Your task to perform on an android device: toggle data saver in the chrome app Image 0: 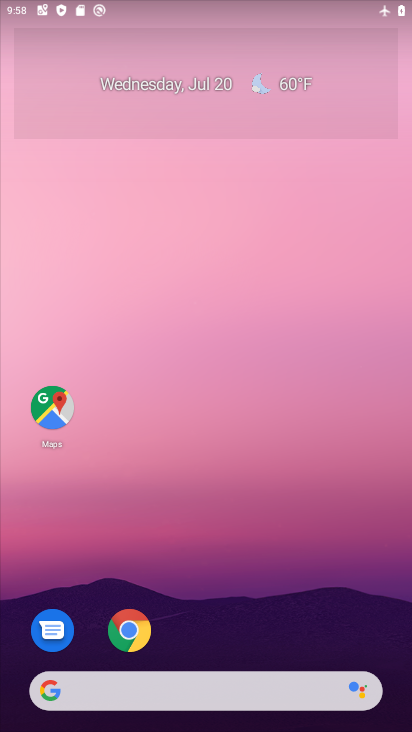
Step 0: click (120, 628)
Your task to perform on an android device: toggle data saver in the chrome app Image 1: 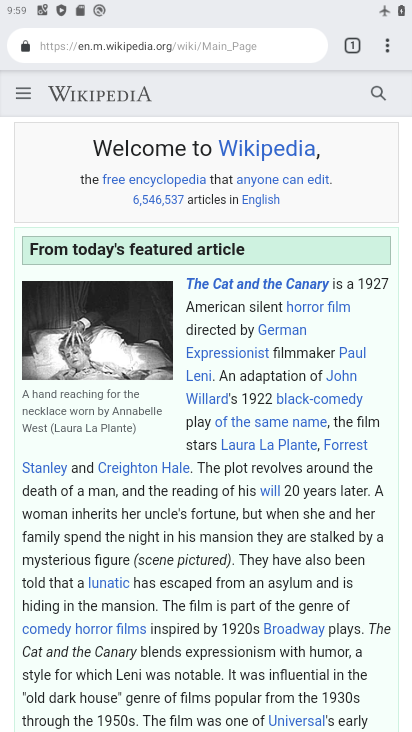
Step 1: click (387, 50)
Your task to perform on an android device: toggle data saver in the chrome app Image 2: 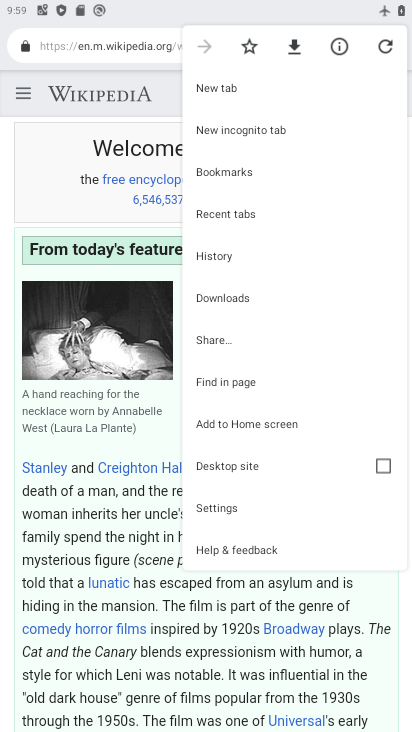
Step 2: click (228, 511)
Your task to perform on an android device: toggle data saver in the chrome app Image 3: 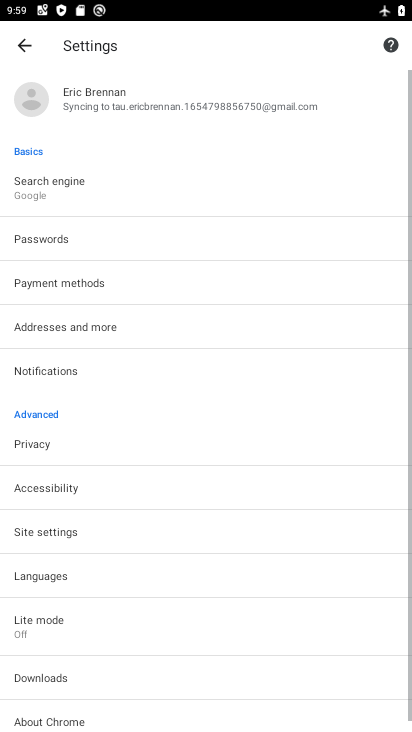
Step 3: click (42, 617)
Your task to perform on an android device: toggle data saver in the chrome app Image 4: 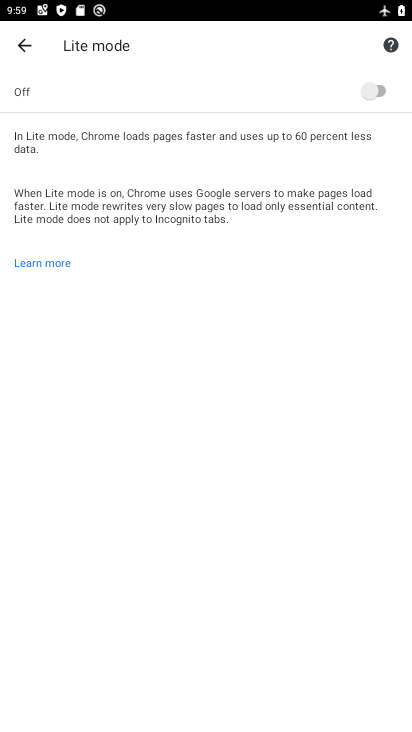
Step 4: click (375, 88)
Your task to perform on an android device: toggle data saver in the chrome app Image 5: 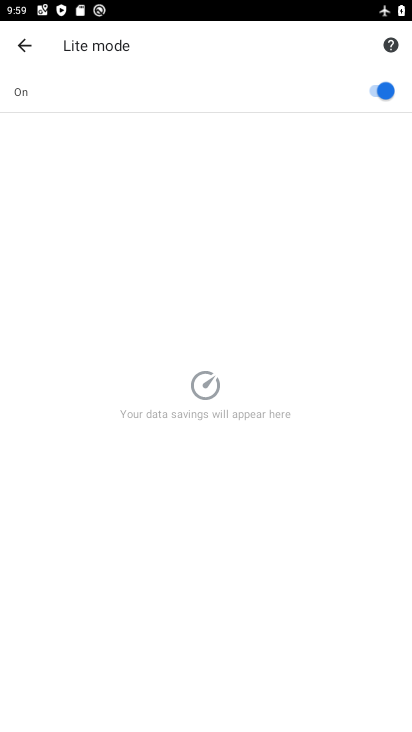
Step 5: task complete